Your task to perform on an android device: open chrome and create a bookmark for the current page Image 0: 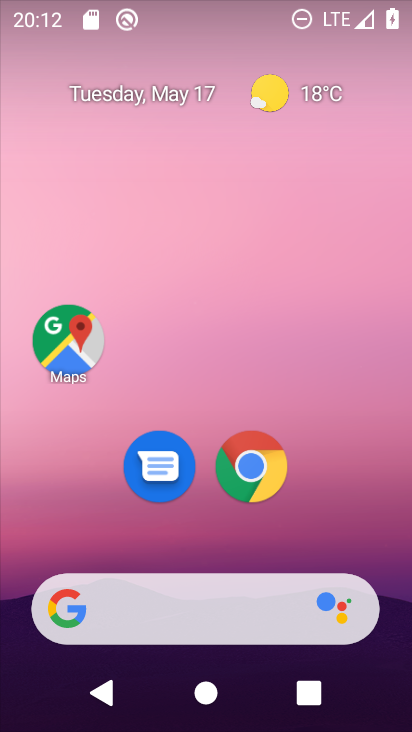
Step 0: click (250, 498)
Your task to perform on an android device: open chrome and create a bookmark for the current page Image 1: 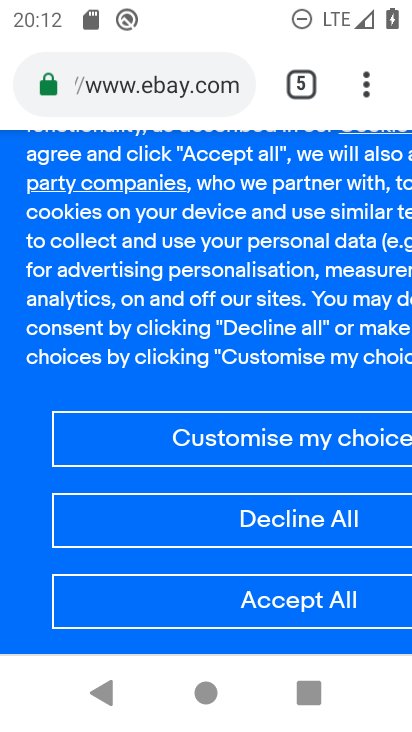
Step 1: click (358, 103)
Your task to perform on an android device: open chrome and create a bookmark for the current page Image 2: 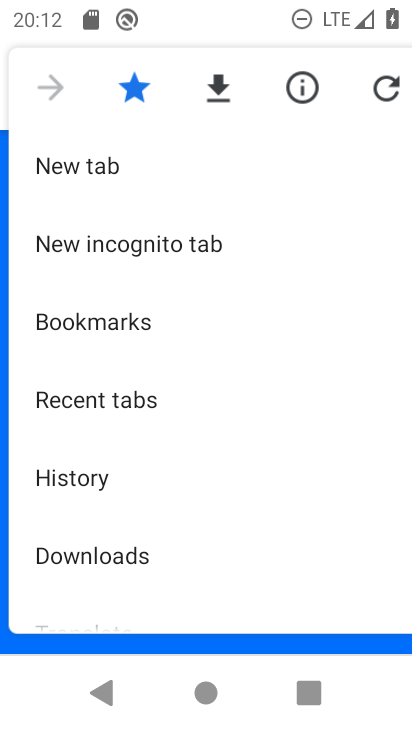
Step 2: task complete